Your task to perform on an android device: search for console tables on article.com Image 0: 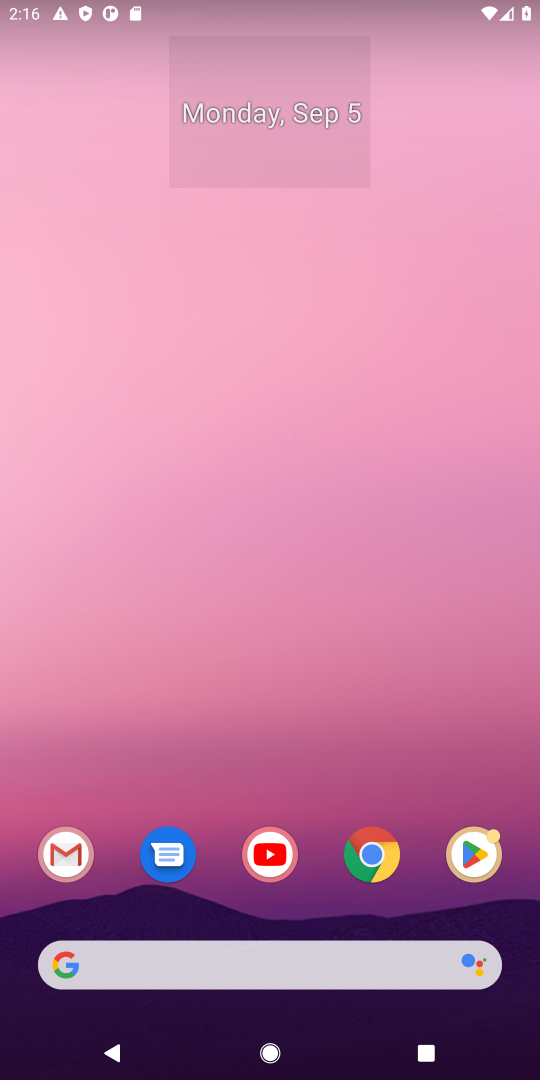
Step 0: press home button
Your task to perform on an android device: search for console tables on article.com Image 1: 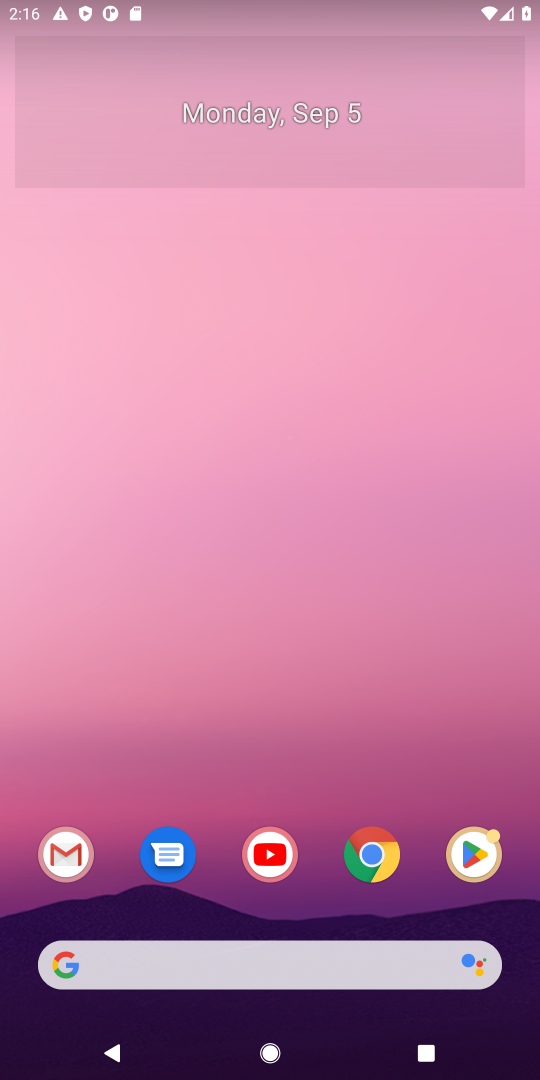
Step 1: click (346, 962)
Your task to perform on an android device: search for console tables on article.com Image 2: 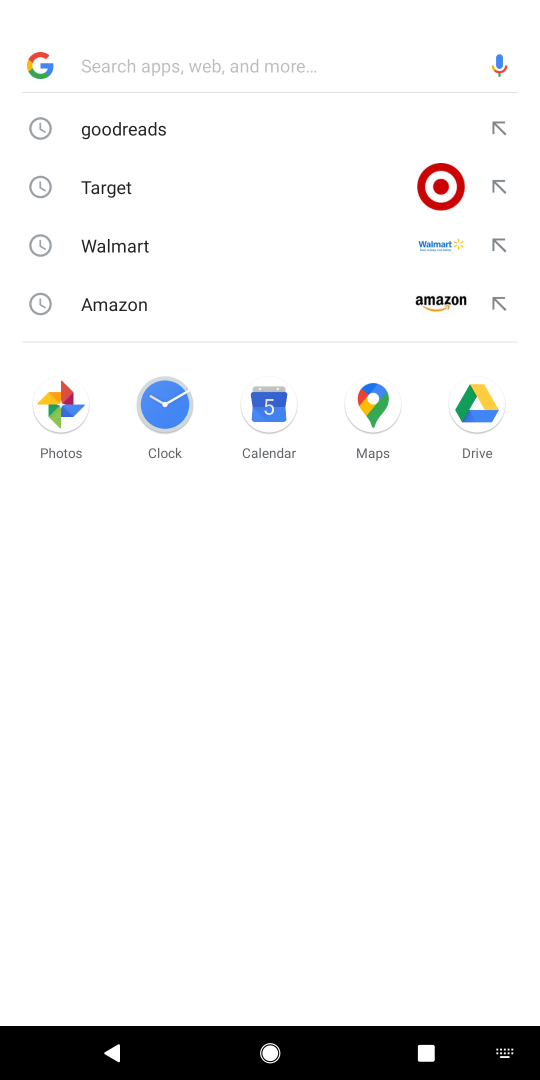
Step 2: type "article.com"
Your task to perform on an android device: search for console tables on article.com Image 3: 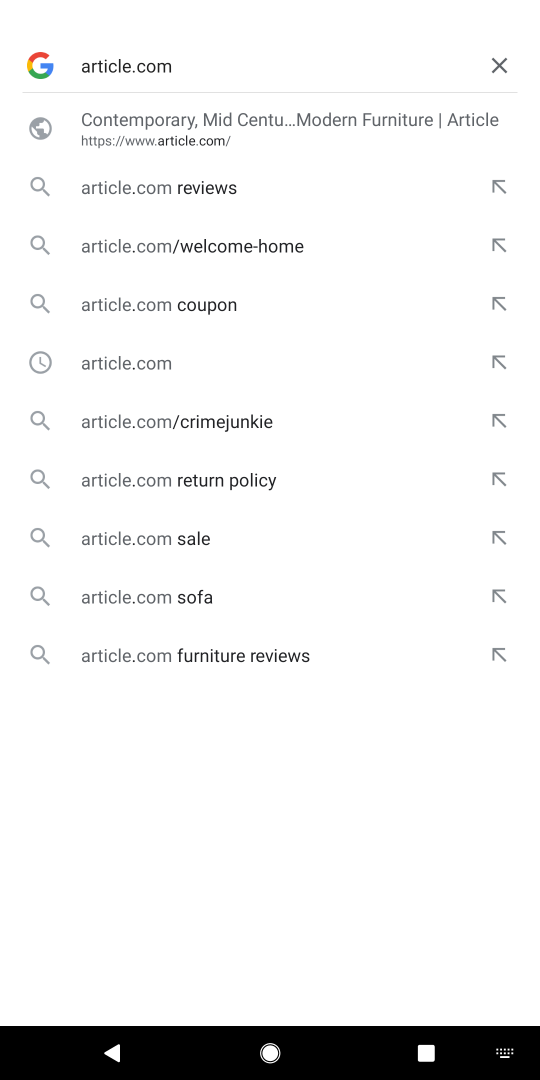
Step 3: press enter
Your task to perform on an android device: search for console tables on article.com Image 4: 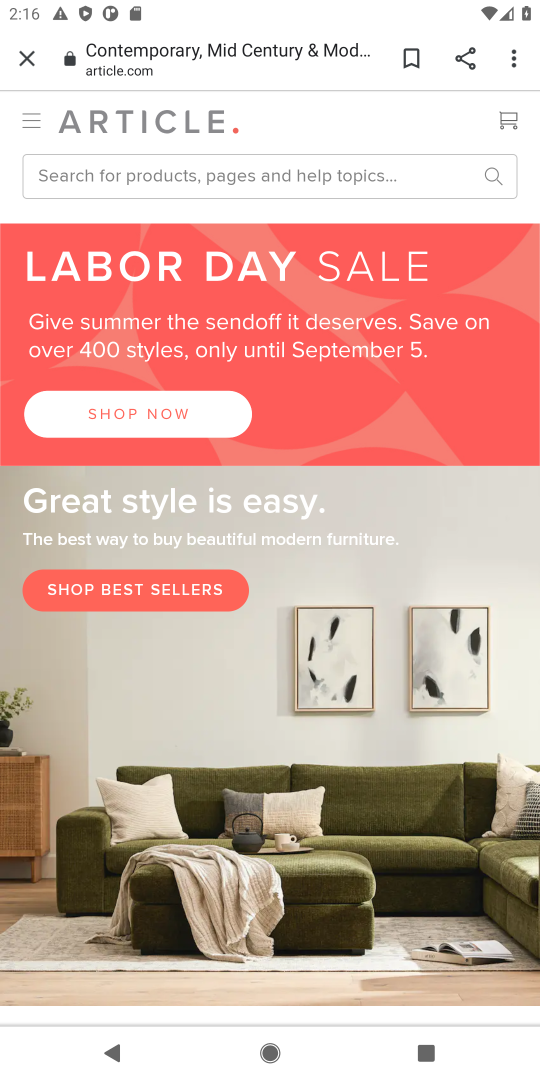
Step 4: click (116, 169)
Your task to perform on an android device: search for console tables on article.com Image 5: 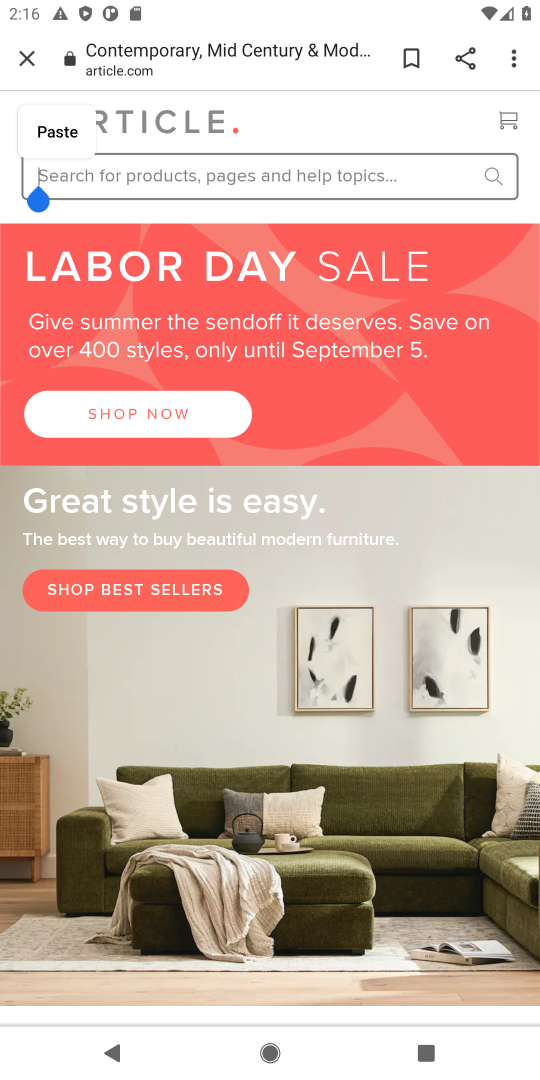
Step 5: type "console tables"
Your task to perform on an android device: search for console tables on article.com Image 6: 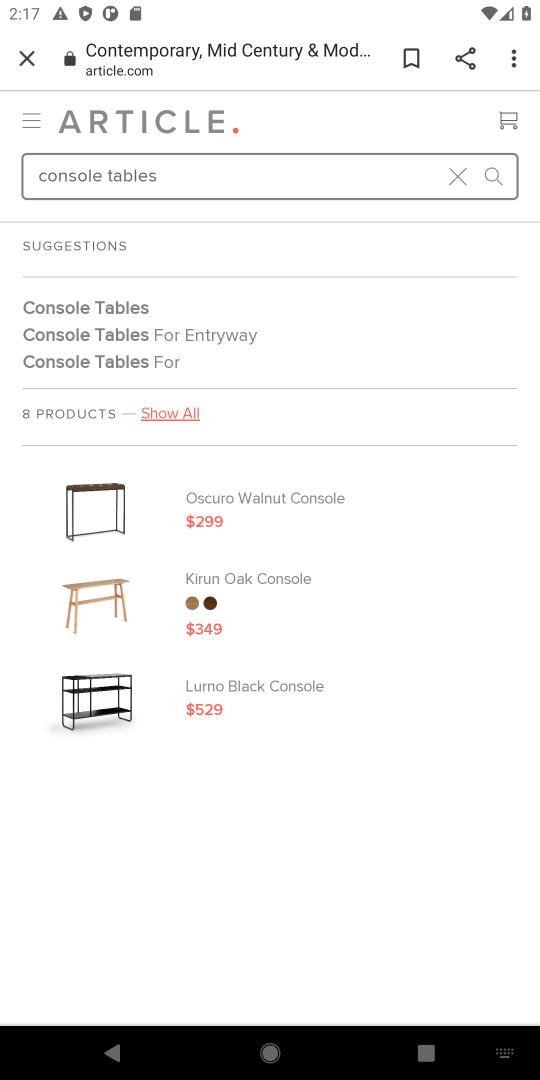
Step 6: task complete